Your task to perform on an android device: change notification settings in the gmail app Image 0: 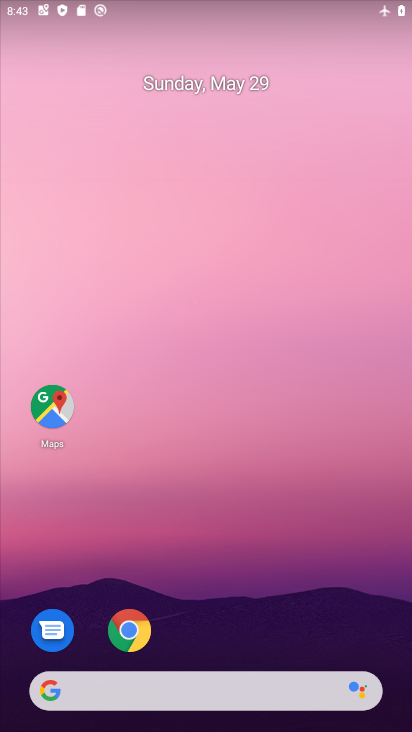
Step 0: drag from (213, 666) to (225, 66)
Your task to perform on an android device: change notification settings in the gmail app Image 1: 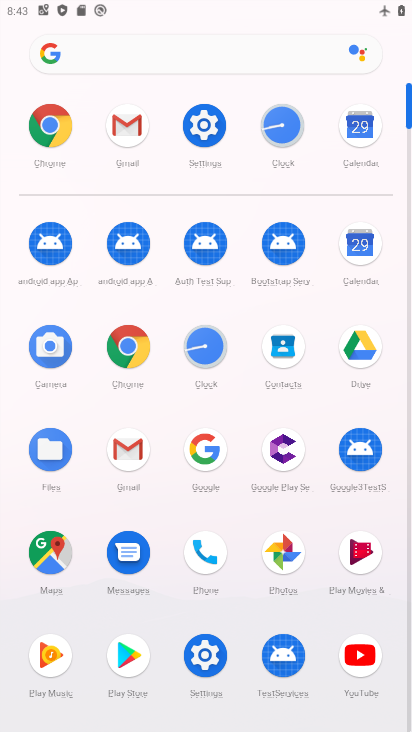
Step 1: click (124, 468)
Your task to perform on an android device: change notification settings in the gmail app Image 2: 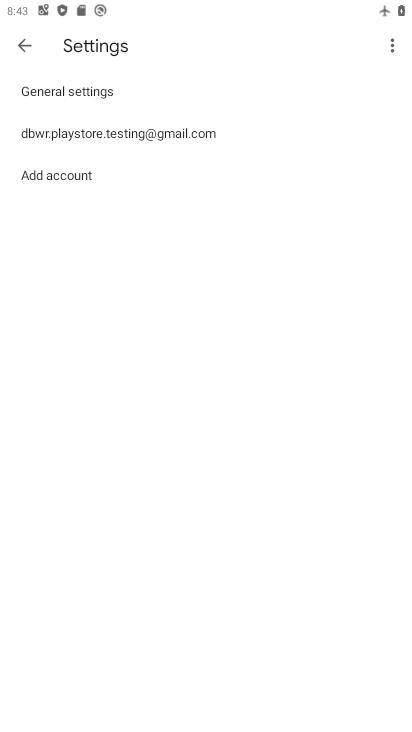
Step 2: click (36, 77)
Your task to perform on an android device: change notification settings in the gmail app Image 3: 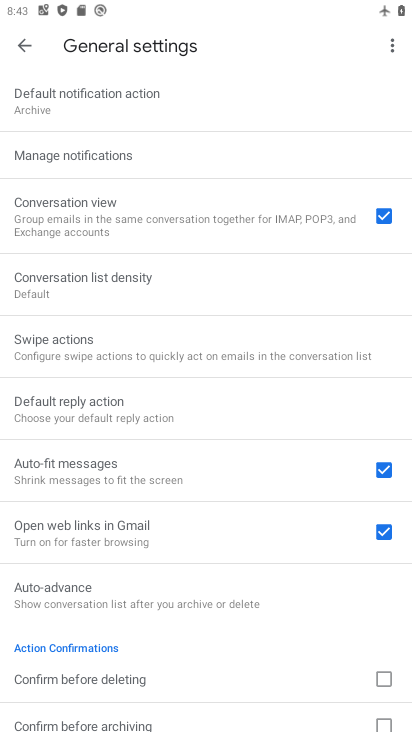
Step 3: click (70, 150)
Your task to perform on an android device: change notification settings in the gmail app Image 4: 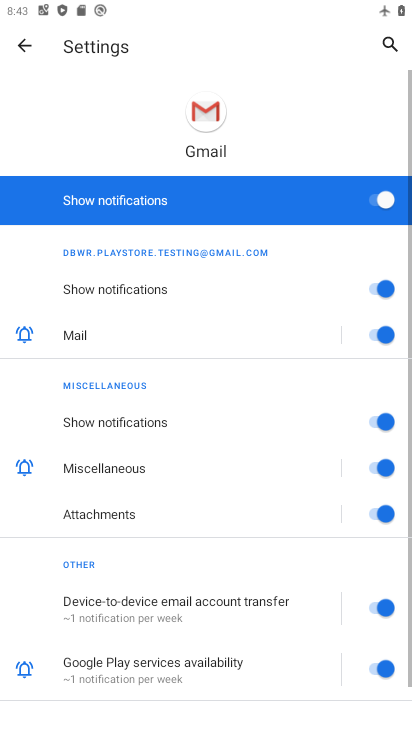
Step 4: click (374, 186)
Your task to perform on an android device: change notification settings in the gmail app Image 5: 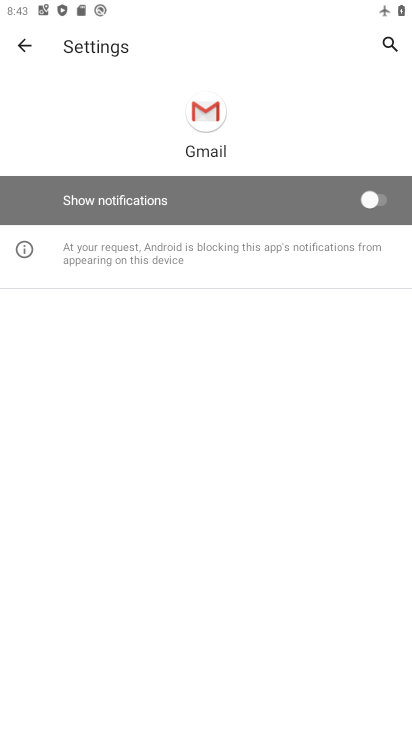
Step 5: task complete